Your task to perform on an android device: toggle notification dots Image 0: 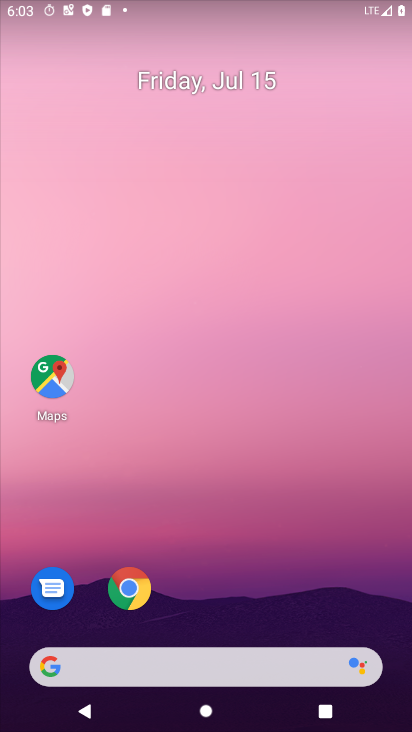
Step 0: drag from (123, 641) to (179, 61)
Your task to perform on an android device: toggle notification dots Image 1: 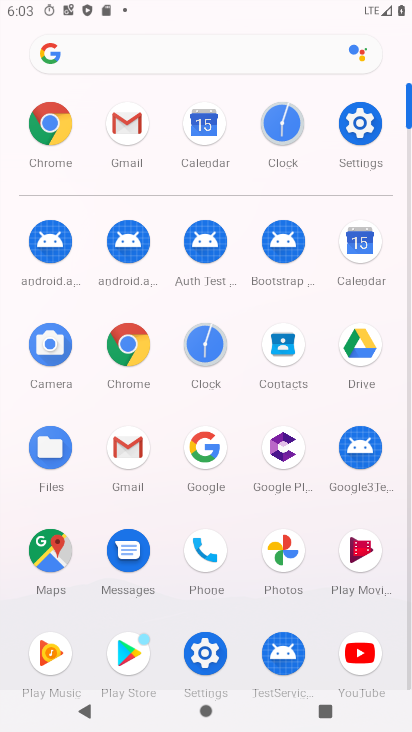
Step 1: click (213, 643)
Your task to perform on an android device: toggle notification dots Image 2: 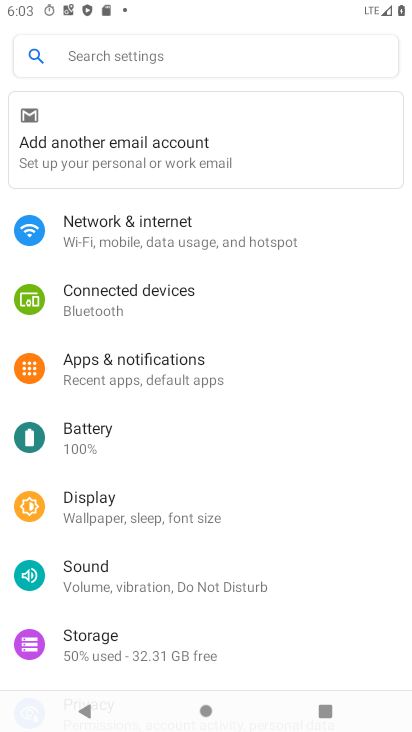
Step 2: click (158, 376)
Your task to perform on an android device: toggle notification dots Image 3: 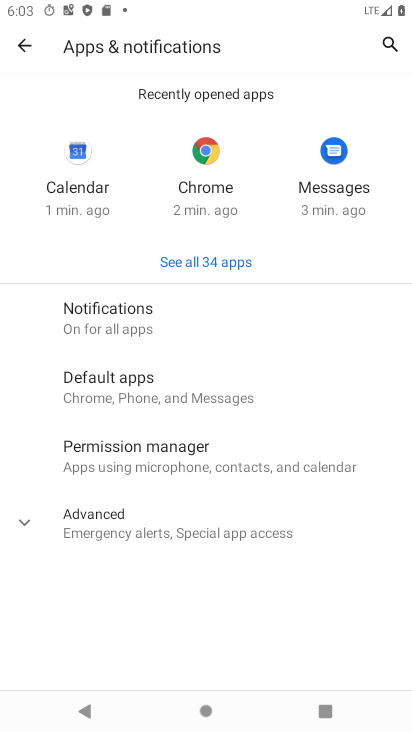
Step 3: click (148, 300)
Your task to perform on an android device: toggle notification dots Image 4: 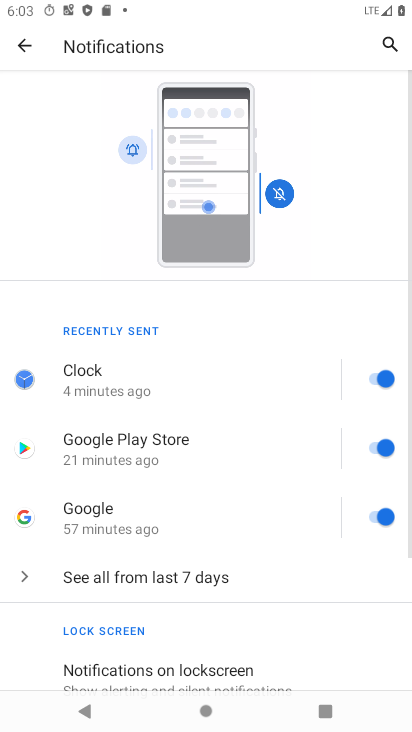
Step 4: drag from (176, 663) to (153, 268)
Your task to perform on an android device: toggle notification dots Image 5: 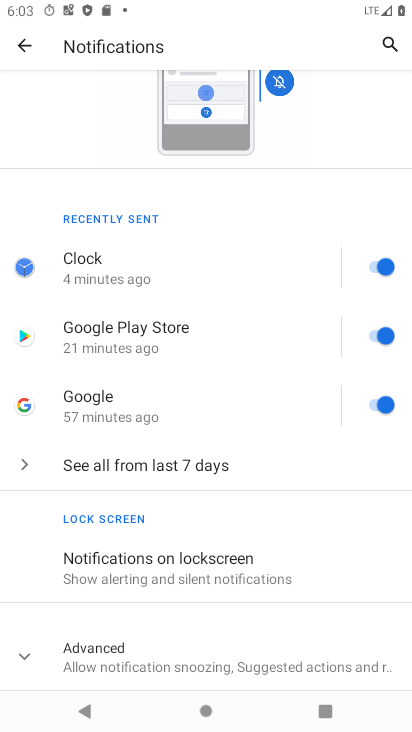
Step 5: click (199, 670)
Your task to perform on an android device: toggle notification dots Image 6: 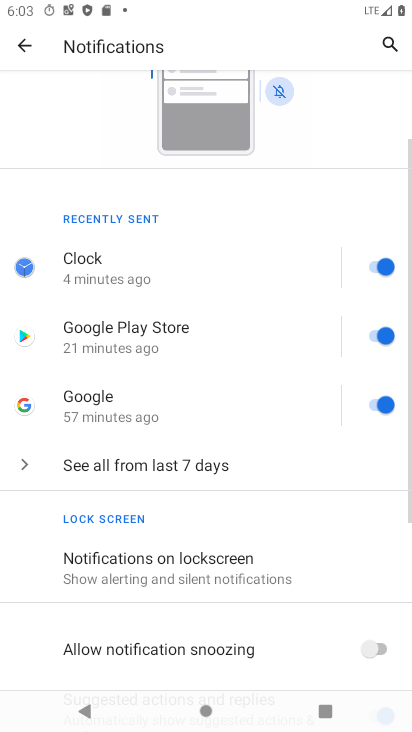
Step 6: drag from (331, 594) to (346, 354)
Your task to perform on an android device: toggle notification dots Image 7: 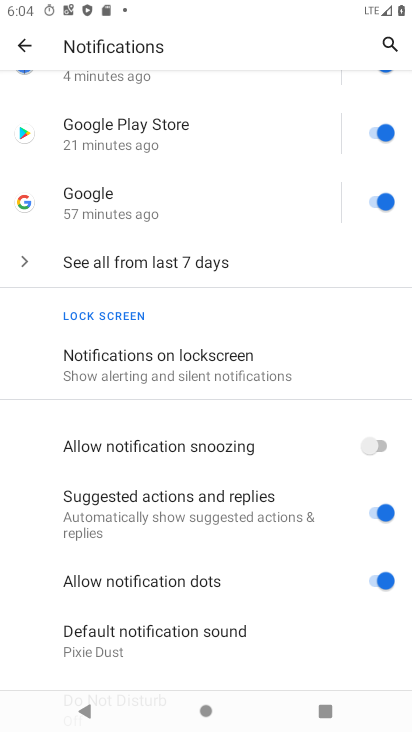
Step 7: click (394, 583)
Your task to perform on an android device: toggle notification dots Image 8: 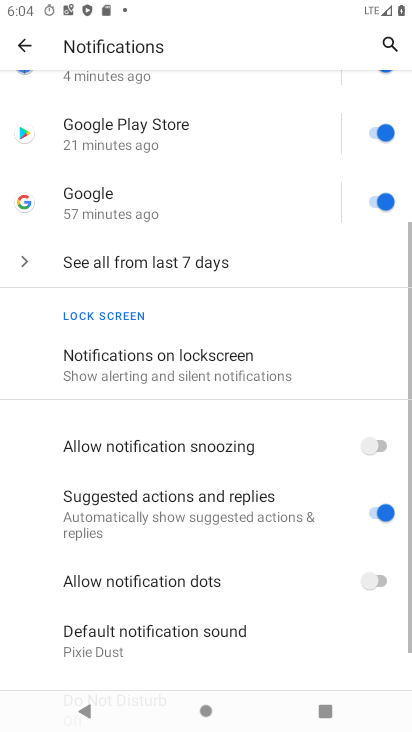
Step 8: task complete